Your task to perform on an android device: Is it going to rain today? Image 0: 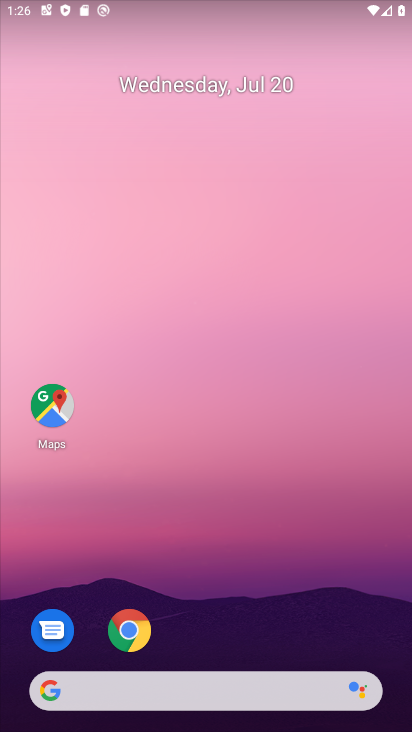
Step 0: drag from (287, 651) to (232, 66)
Your task to perform on an android device: Is it going to rain today? Image 1: 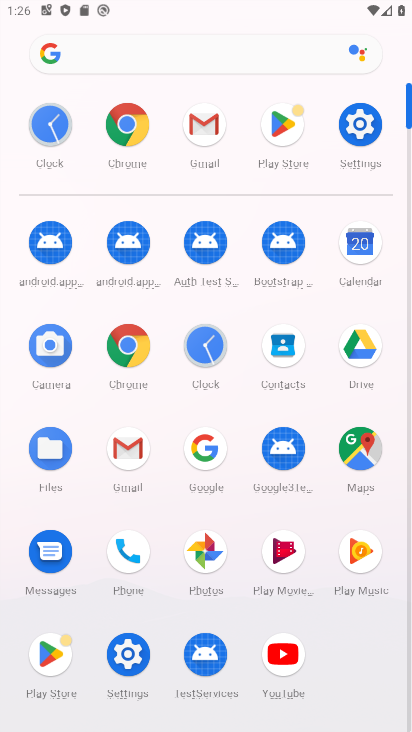
Step 1: click (135, 123)
Your task to perform on an android device: Is it going to rain today? Image 2: 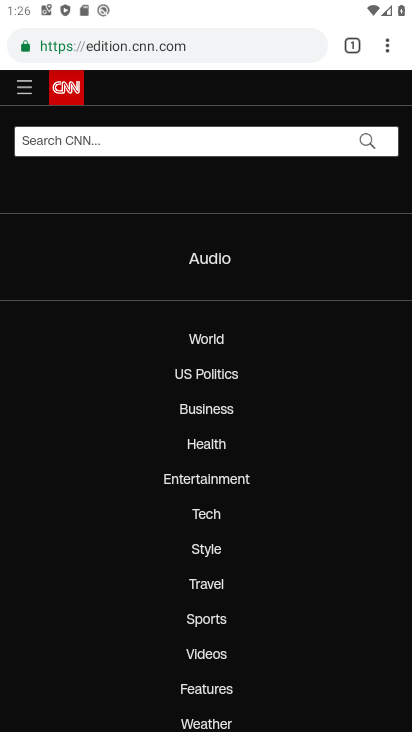
Step 2: click (225, 41)
Your task to perform on an android device: Is it going to rain today? Image 3: 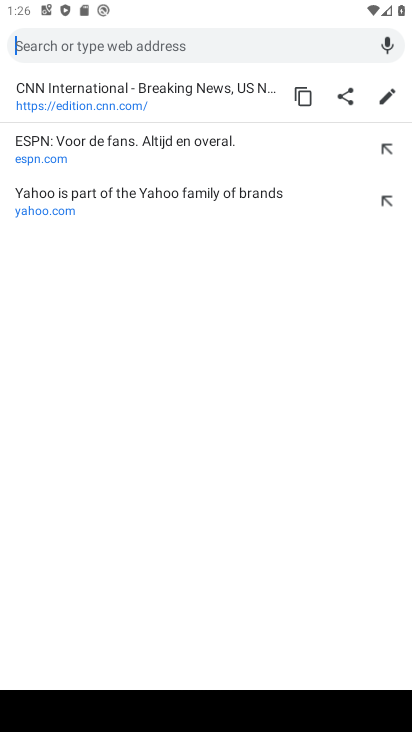
Step 3: type "weather"
Your task to perform on an android device: Is it going to rain today? Image 4: 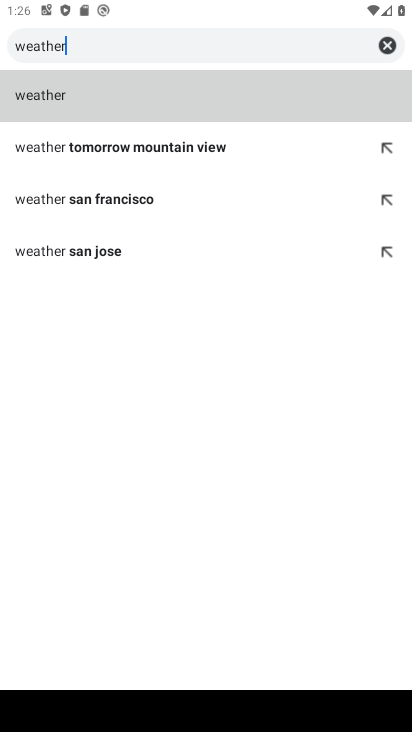
Step 4: click (67, 101)
Your task to perform on an android device: Is it going to rain today? Image 5: 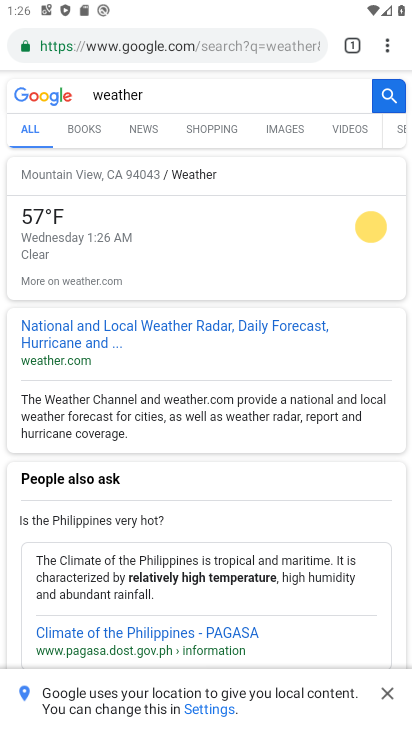
Step 5: task complete